Your task to perform on an android device: toggle location history Image 0: 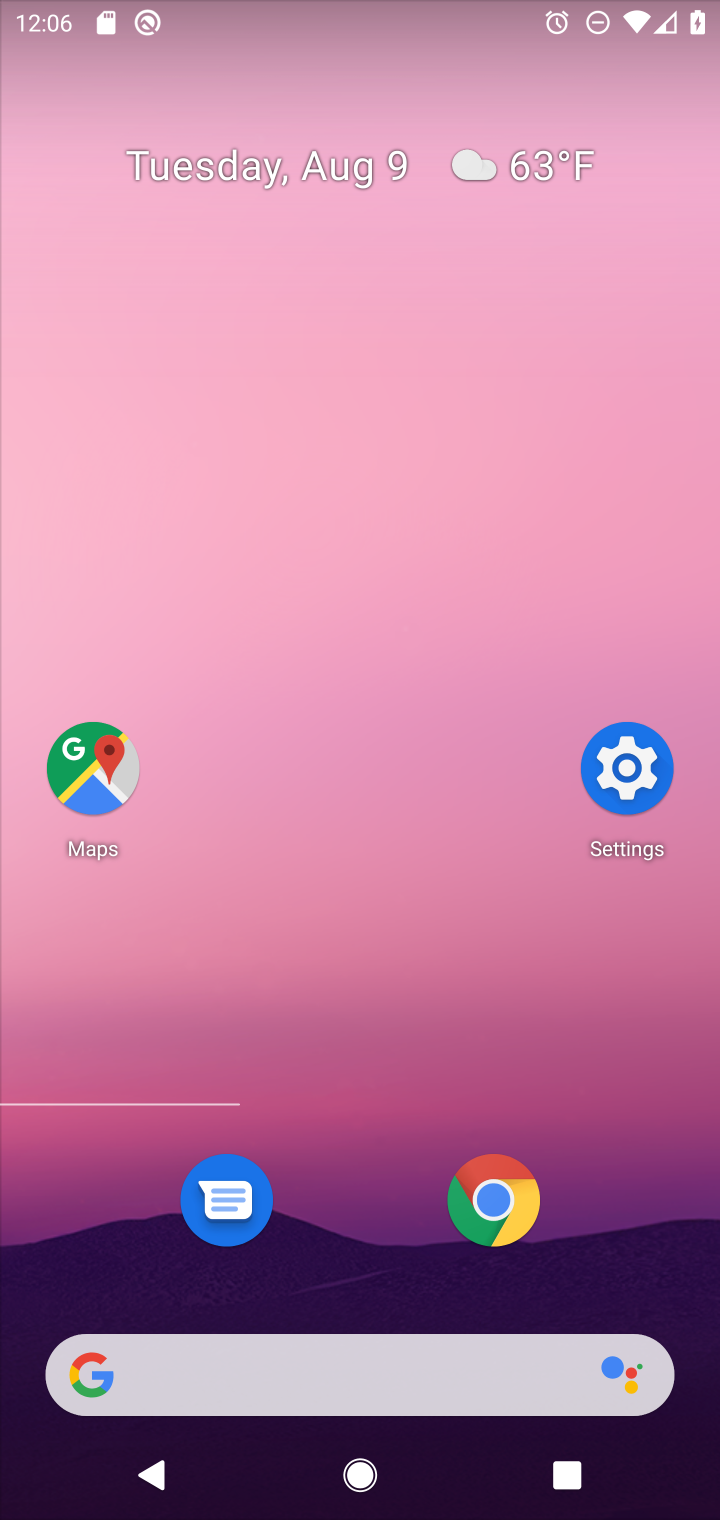
Step 0: click (98, 791)
Your task to perform on an android device: toggle location history Image 1: 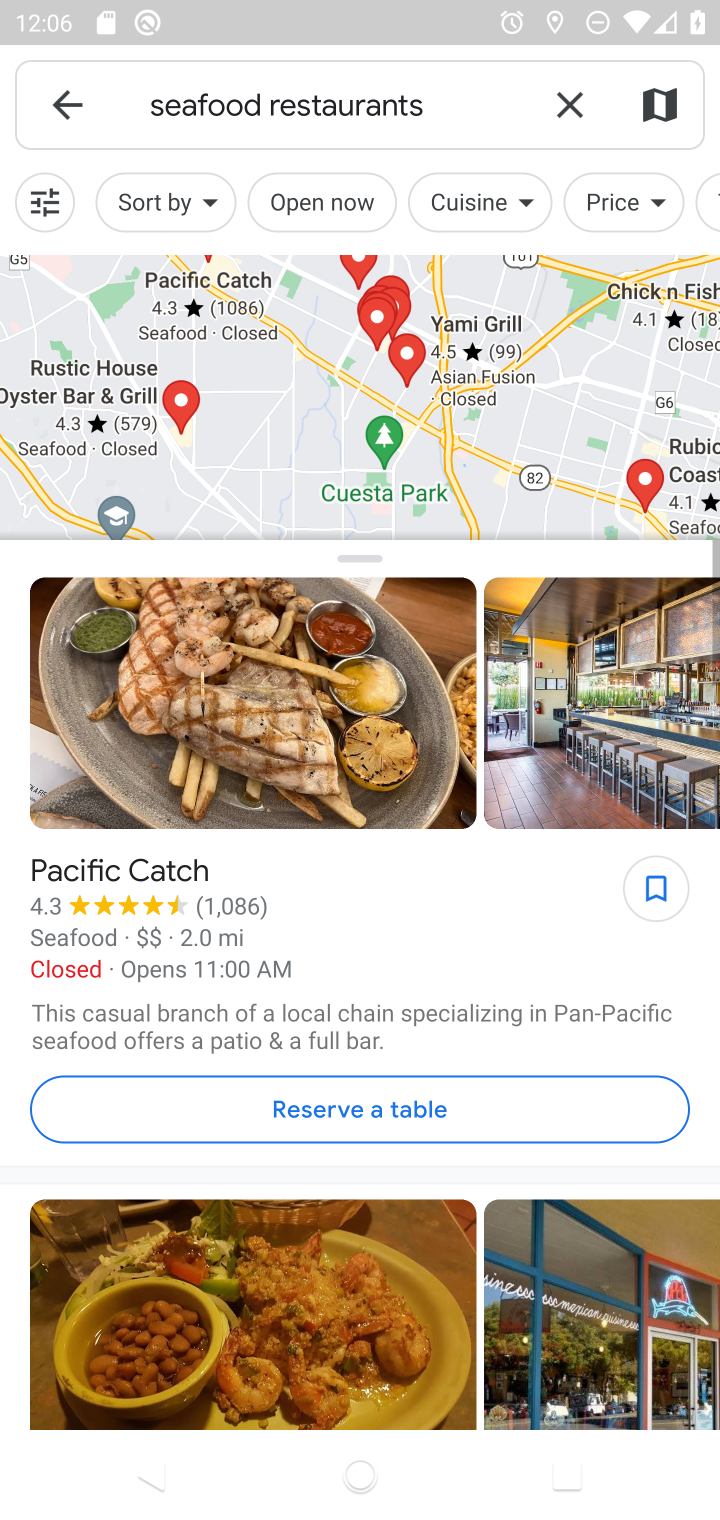
Step 1: click (75, 97)
Your task to perform on an android device: toggle location history Image 2: 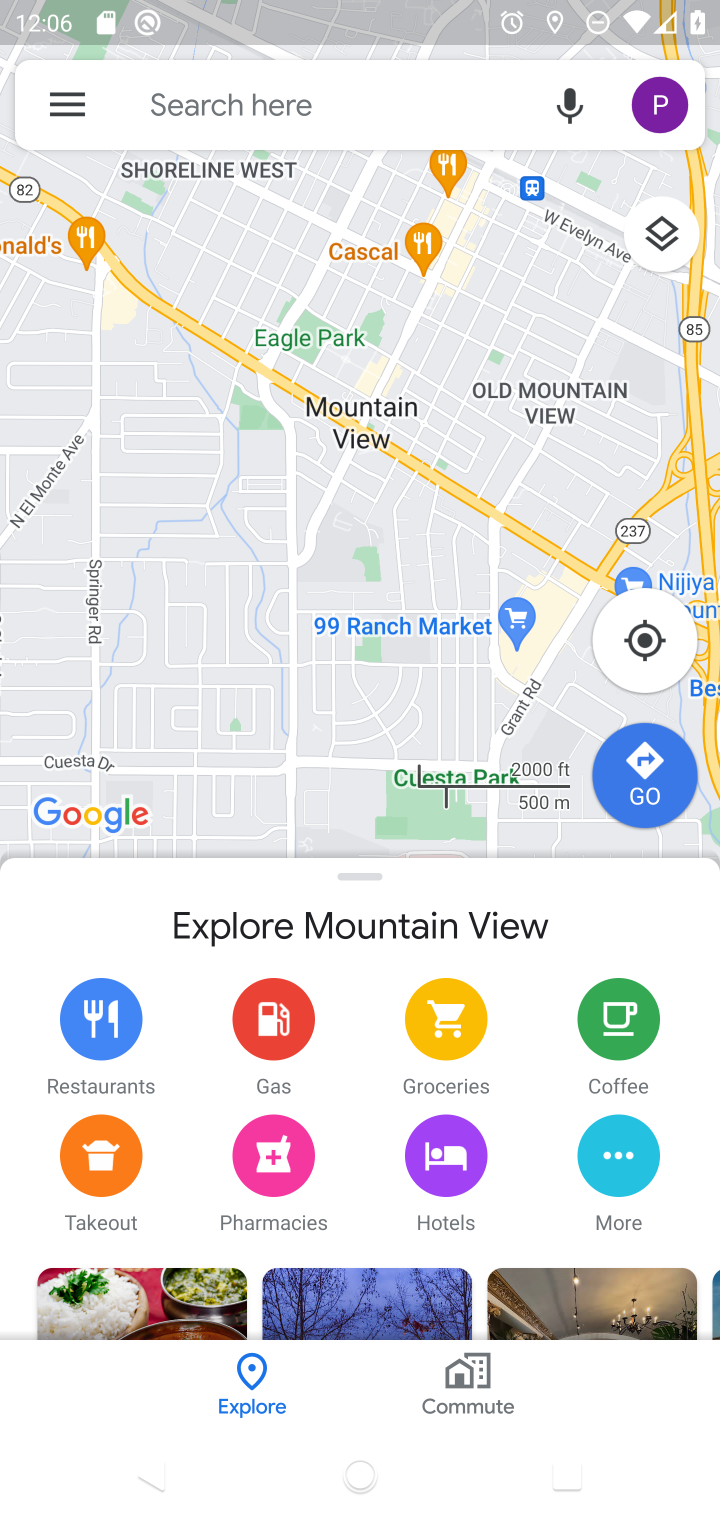
Step 2: click (73, 109)
Your task to perform on an android device: toggle location history Image 3: 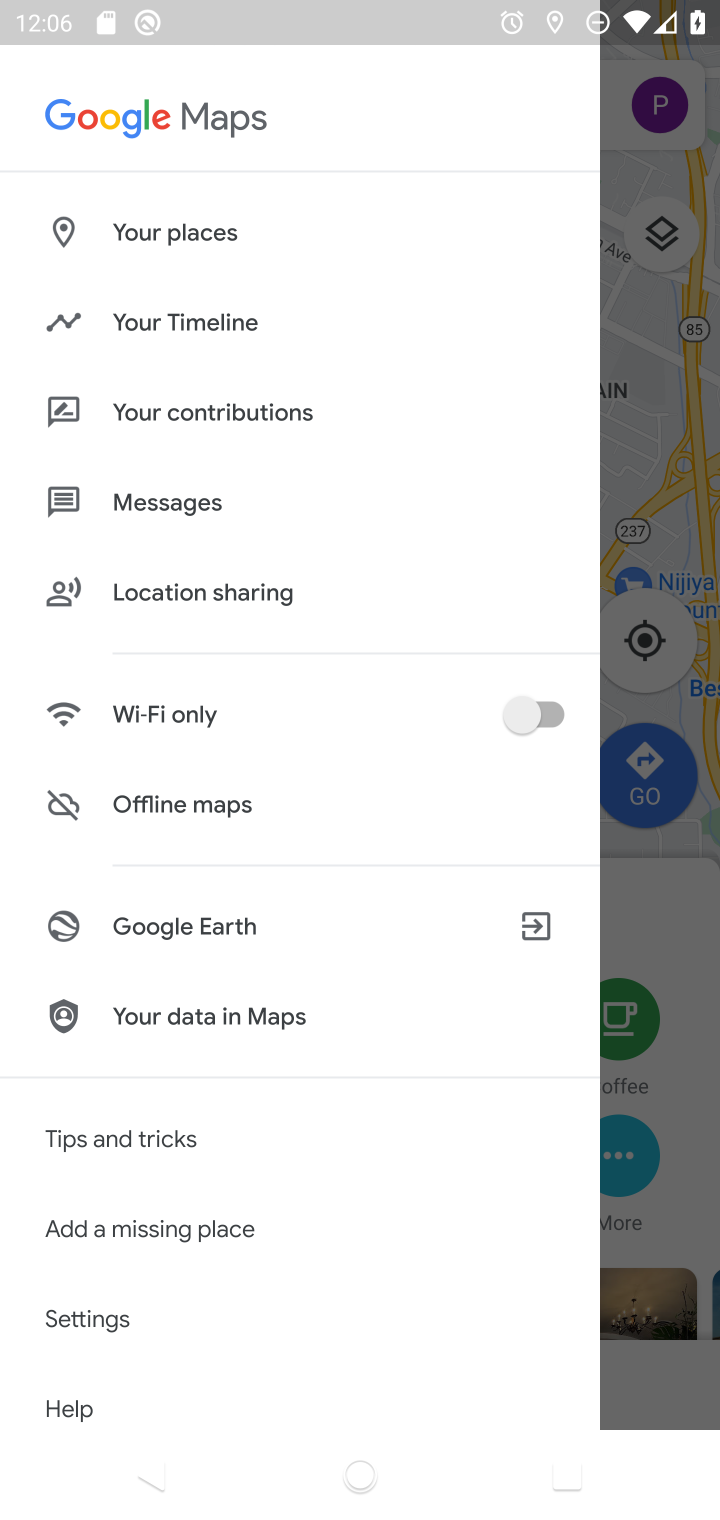
Step 3: click (204, 331)
Your task to perform on an android device: toggle location history Image 4: 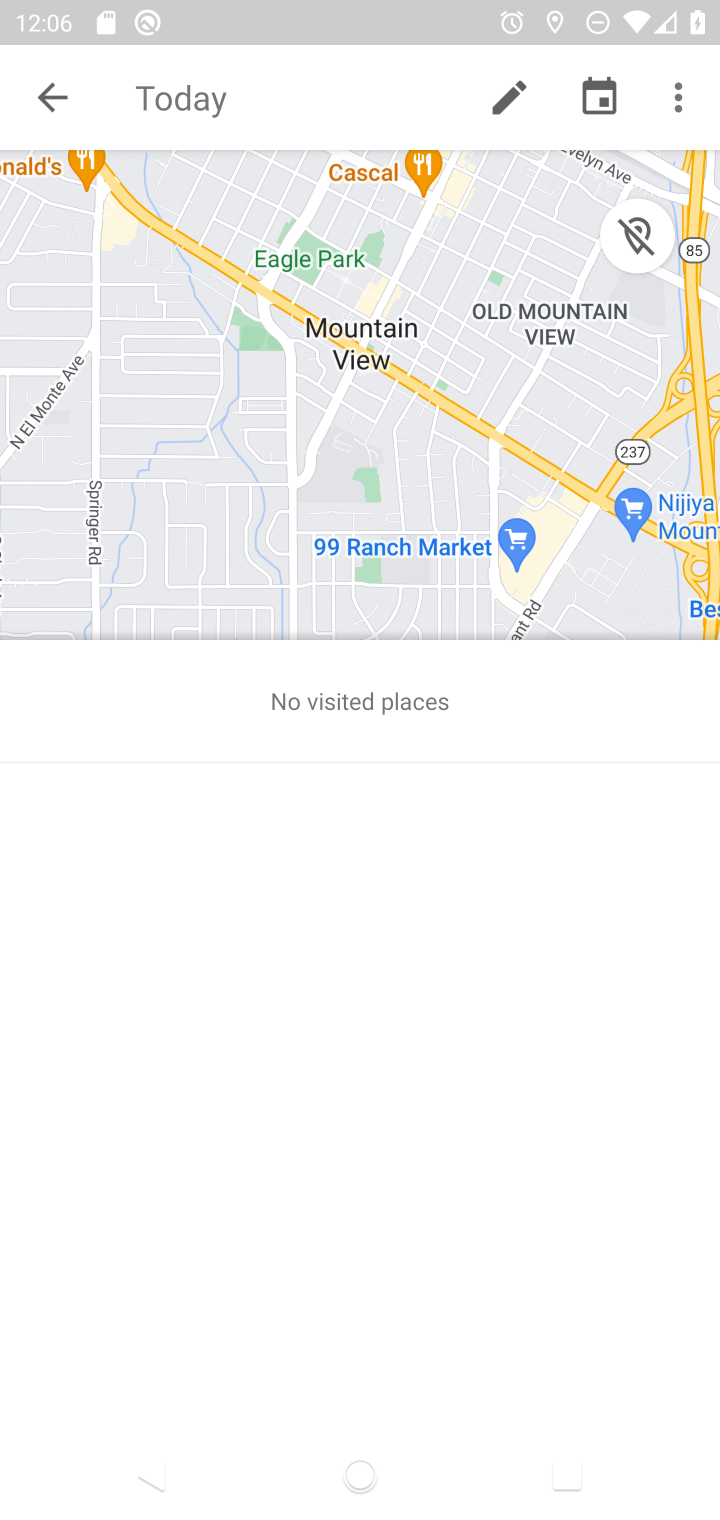
Step 4: click (668, 106)
Your task to perform on an android device: toggle location history Image 5: 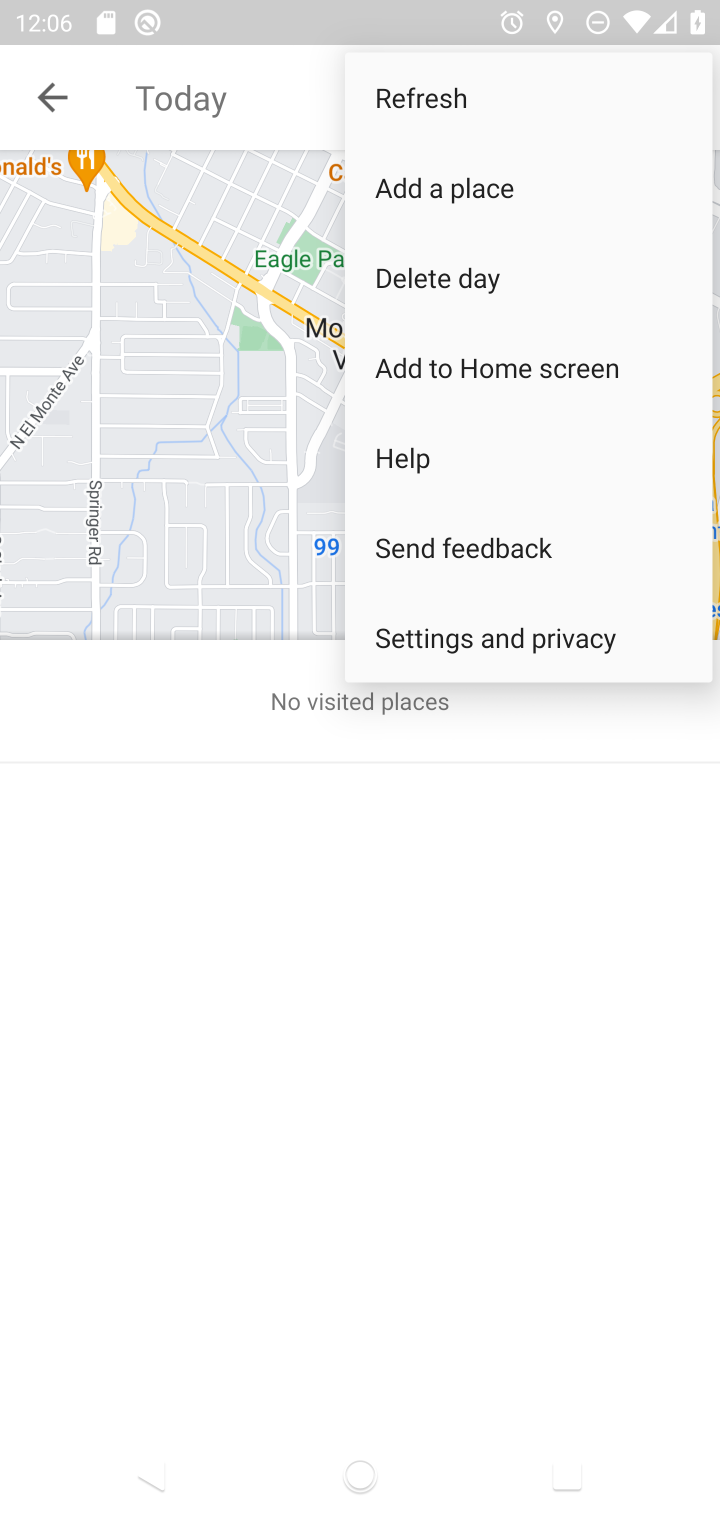
Step 5: click (441, 638)
Your task to perform on an android device: toggle location history Image 6: 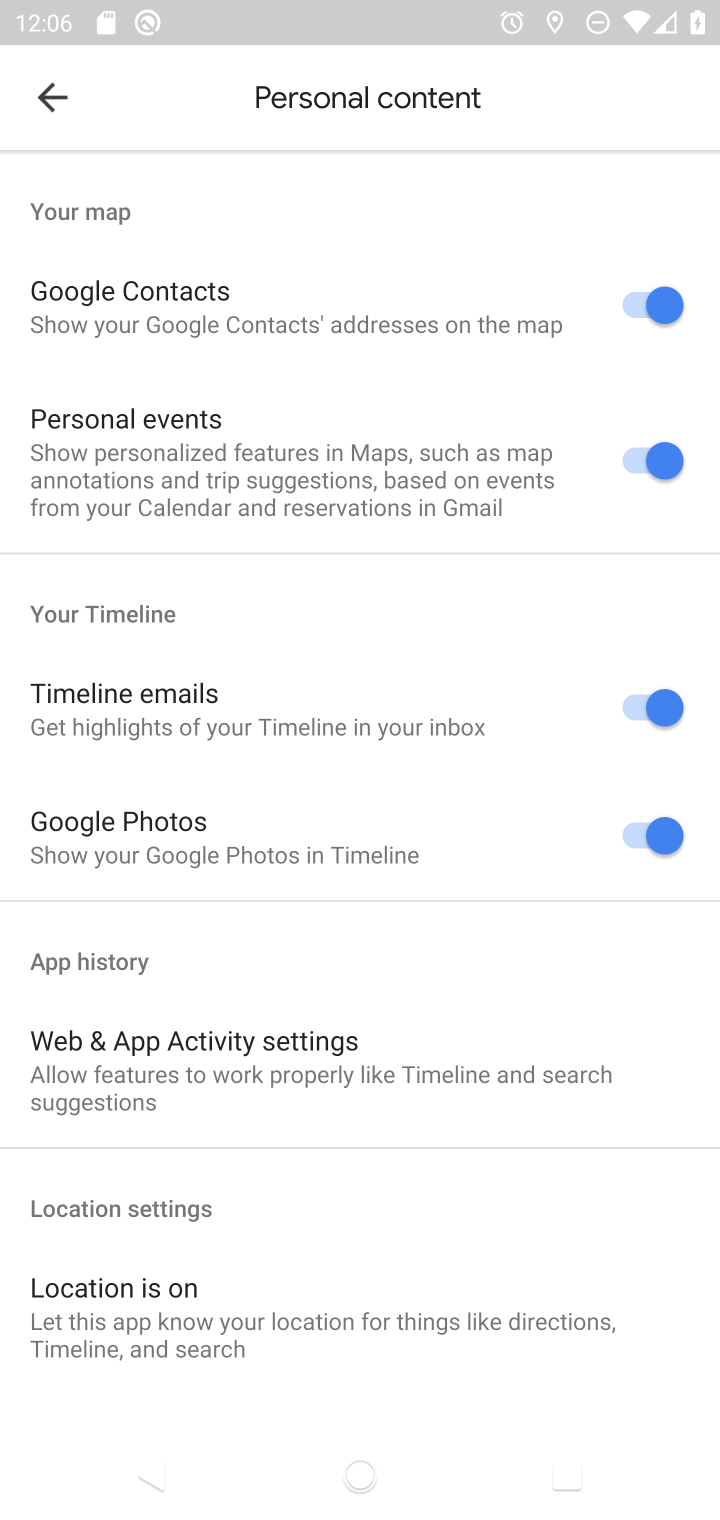
Step 6: drag from (386, 1210) to (349, 144)
Your task to perform on an android device: toggle location history Image 7: 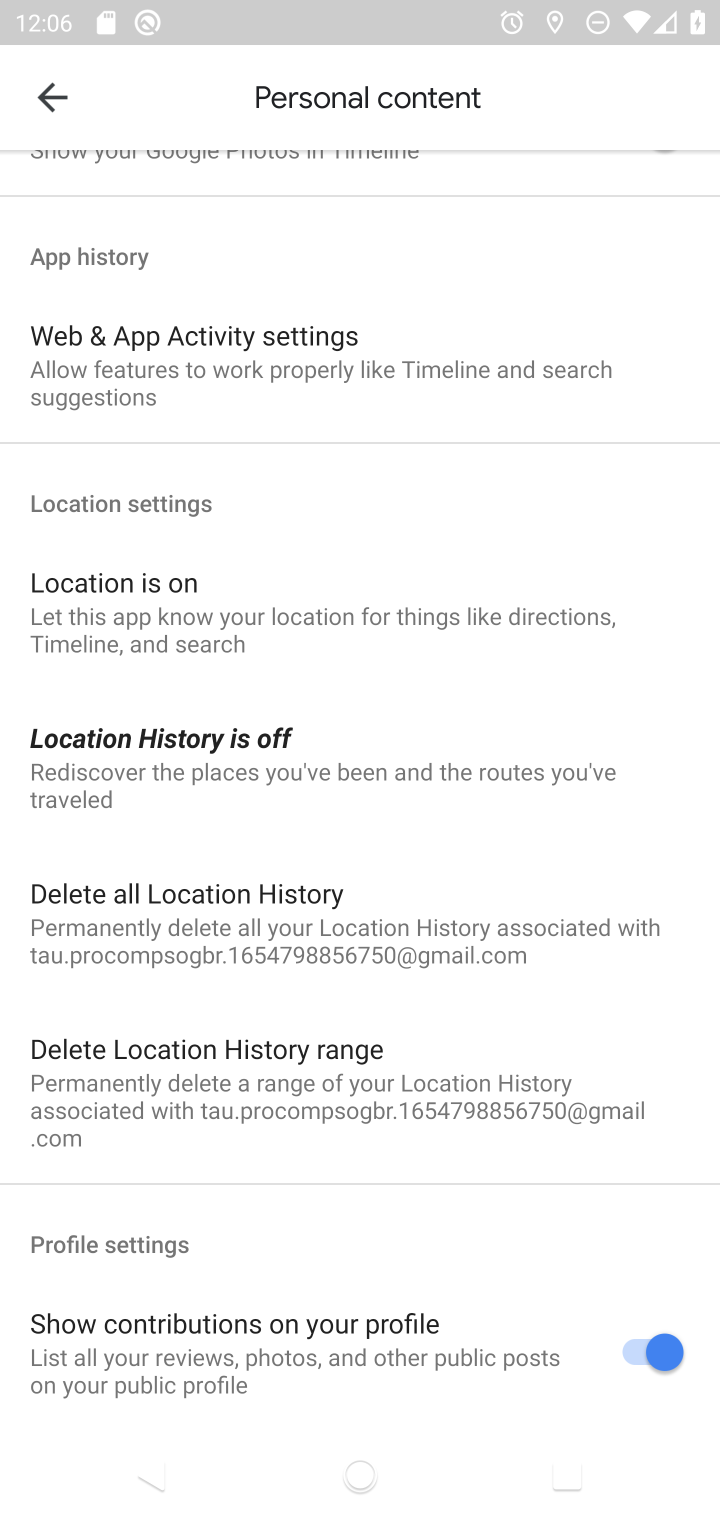
Step 7: click (236, 748)
Your task to perform on an android device: toggle location history Image 8: 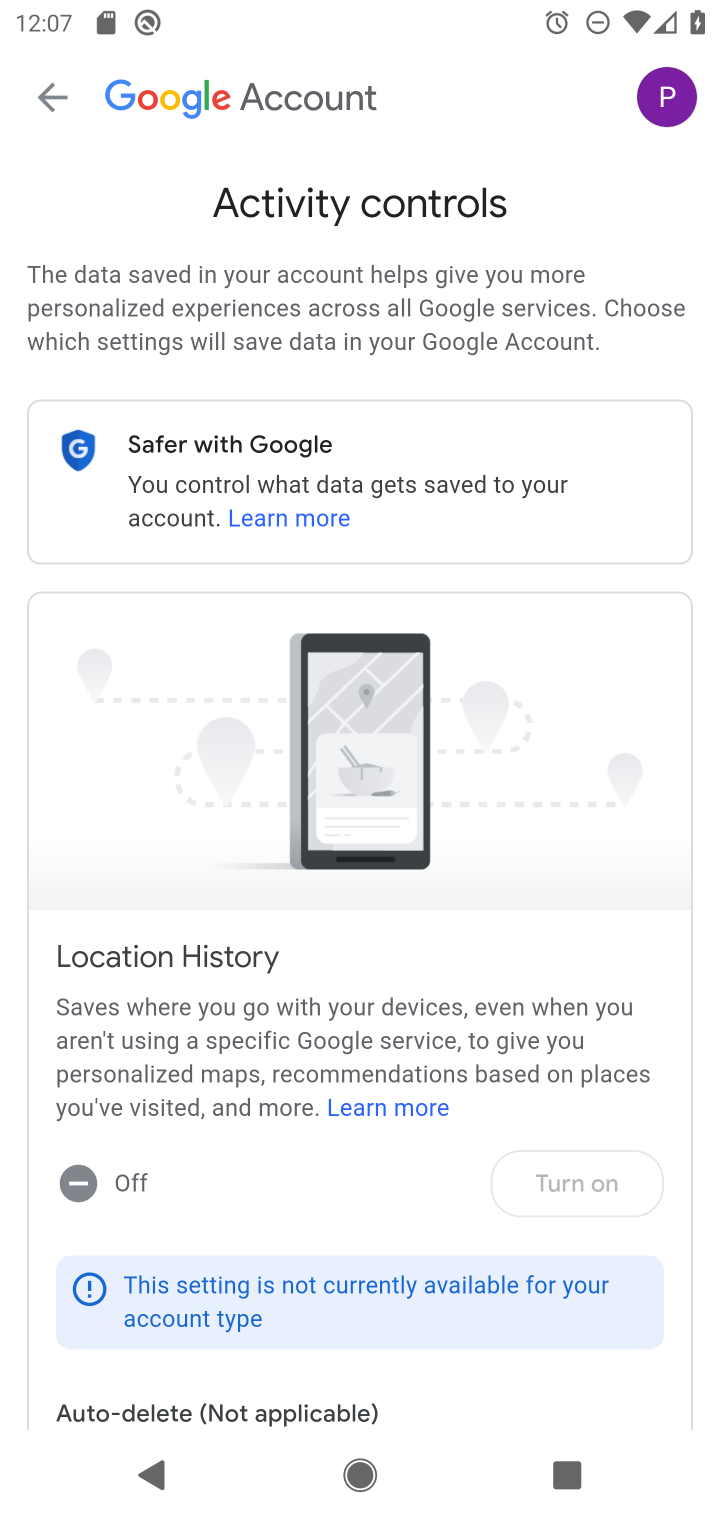
Step 8: task complete